Your task to perform on an android device: Open notification settings Image 0: 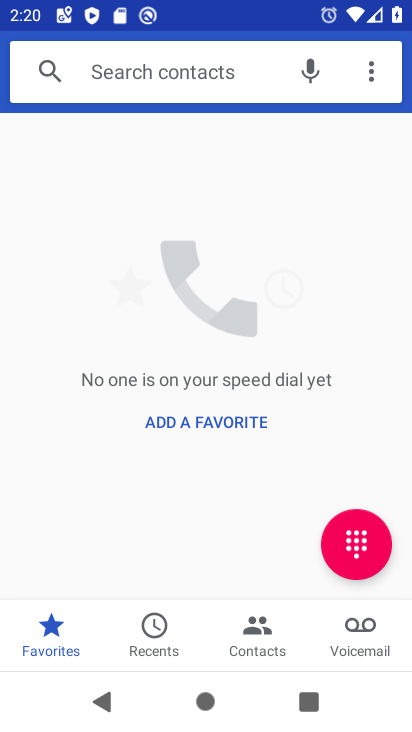
Step 0: press home button
Your task to perform on an android device: Open notification settings Image 1: 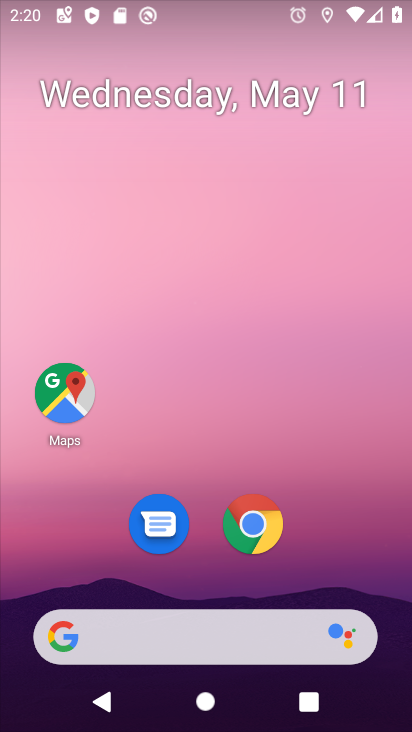
Step 1: drag from (264, 463) to (283, 47)
Your task to perform on an android device: Open notification settings Image 2: 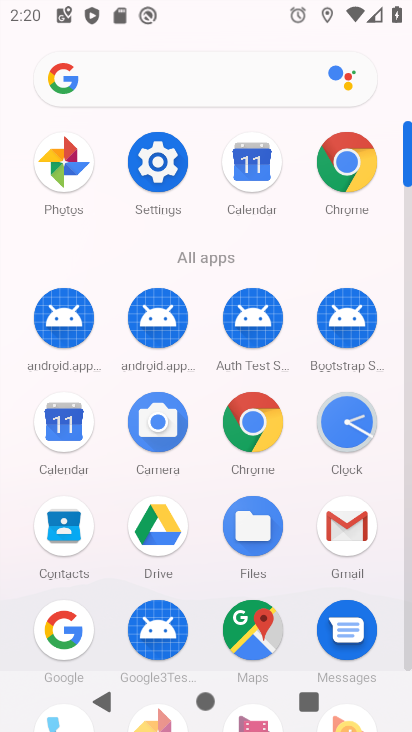
Step 2: click (164, 156)
Your task to perform on an android device: Open notification settings Image 3: 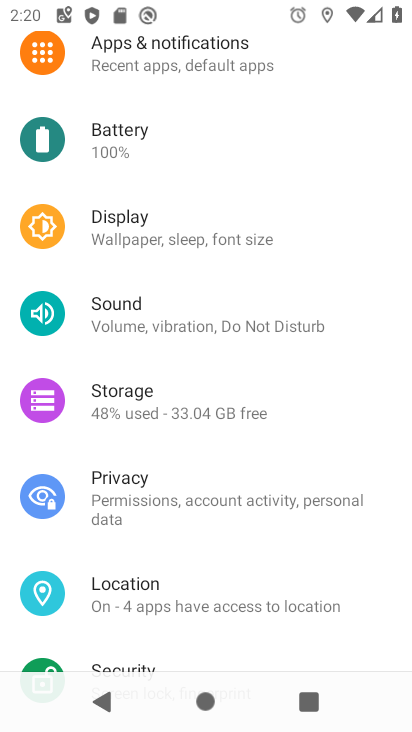
Step 3: click (224, 54)
Your task to perform on an android device: Open notification settings Image 4: 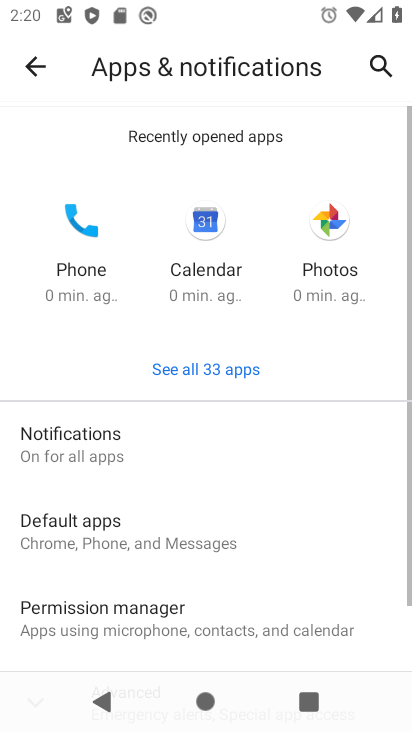
Step 4: click (104, 447)
Your task to perform on an android device: Open notification settings Image 5: 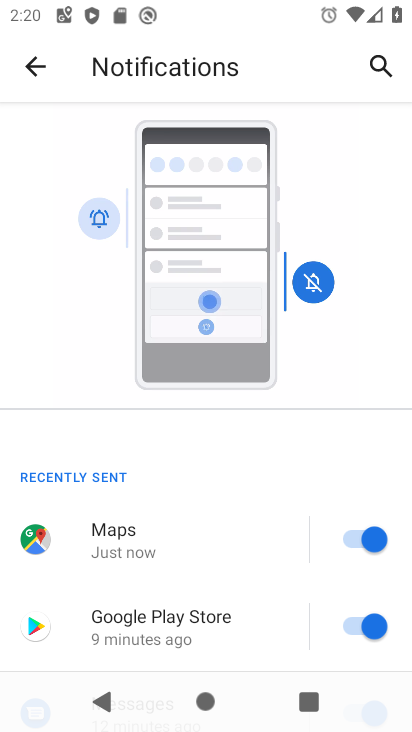
Step 5: task complete